Your task to perform on an android device: Is it going to rain tomorrow? Image 0: 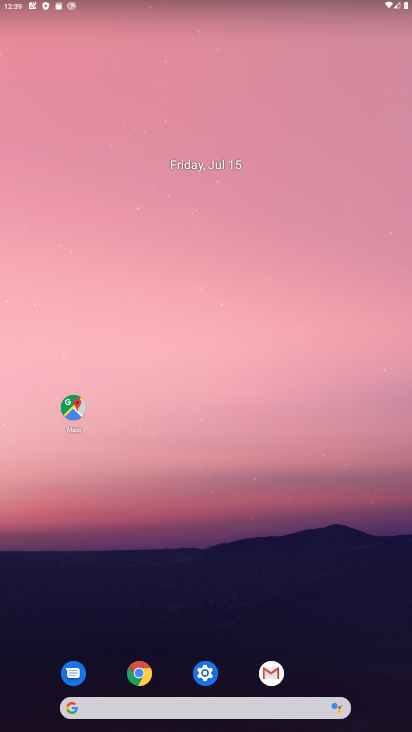
Step 0: press home button
Your task to perform on an android device: Is it going to rain tomorrow? Image 1: 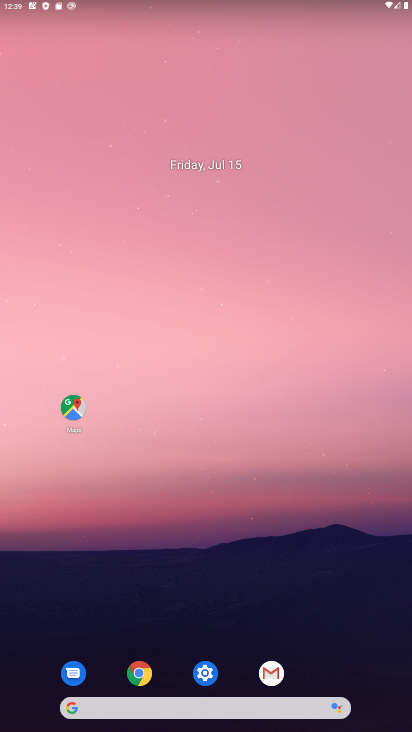
Step 1: click (155, 710)
Your task to perform on an android device: Is it going to rain tomorrow? Image 2: 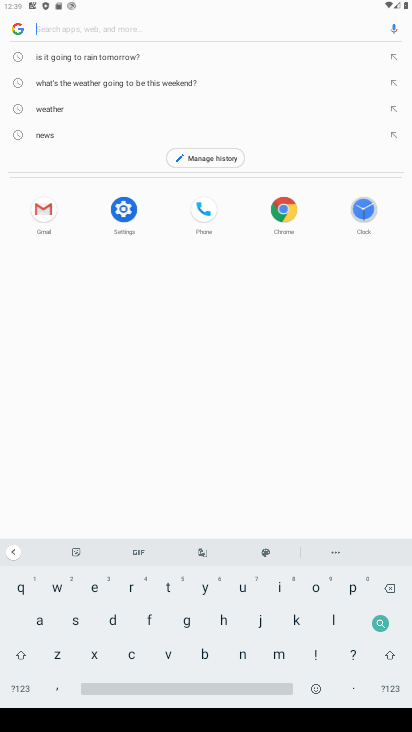
Step 2: click (108, 58)
Your task to perform on an android device: Is it going to rain tomorrow? Image 3: 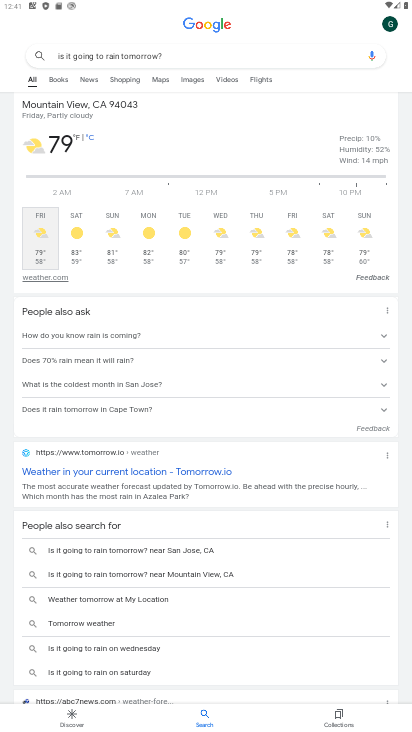
Step 3: task complete